Your task to perform on an android device: Add "acer predator" to the cart on amazon.com, then select checkout. Image 0: 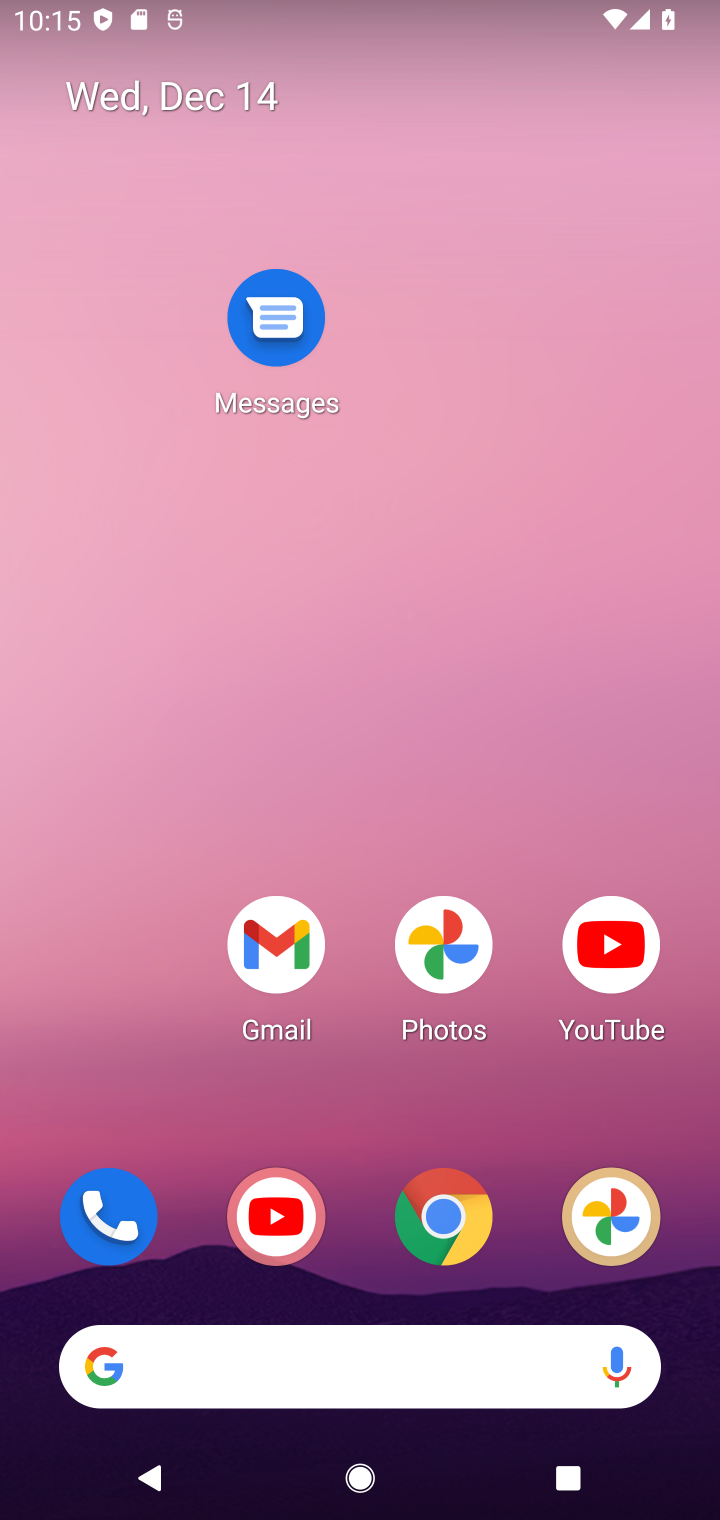
Step 0: press home button
Your task to perform on an android device: Add "acer predator" to the cart on amazon.com, then select checkout. Image 1: 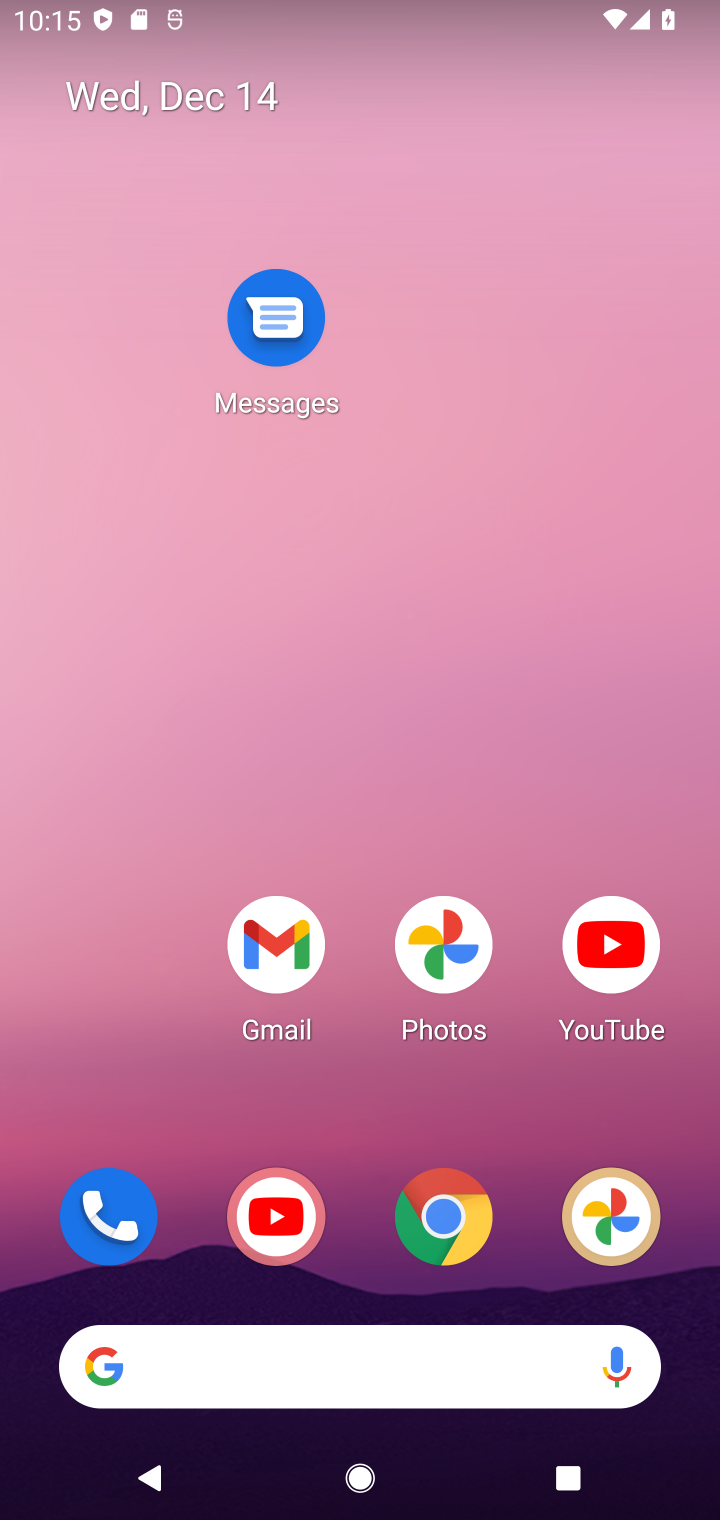
Step 1: drag from (343, 1044) to (249, 381)
Your task to perform on an android device: Add "acer predator" to the cart on amazon.com, then select checkout. Image 2: 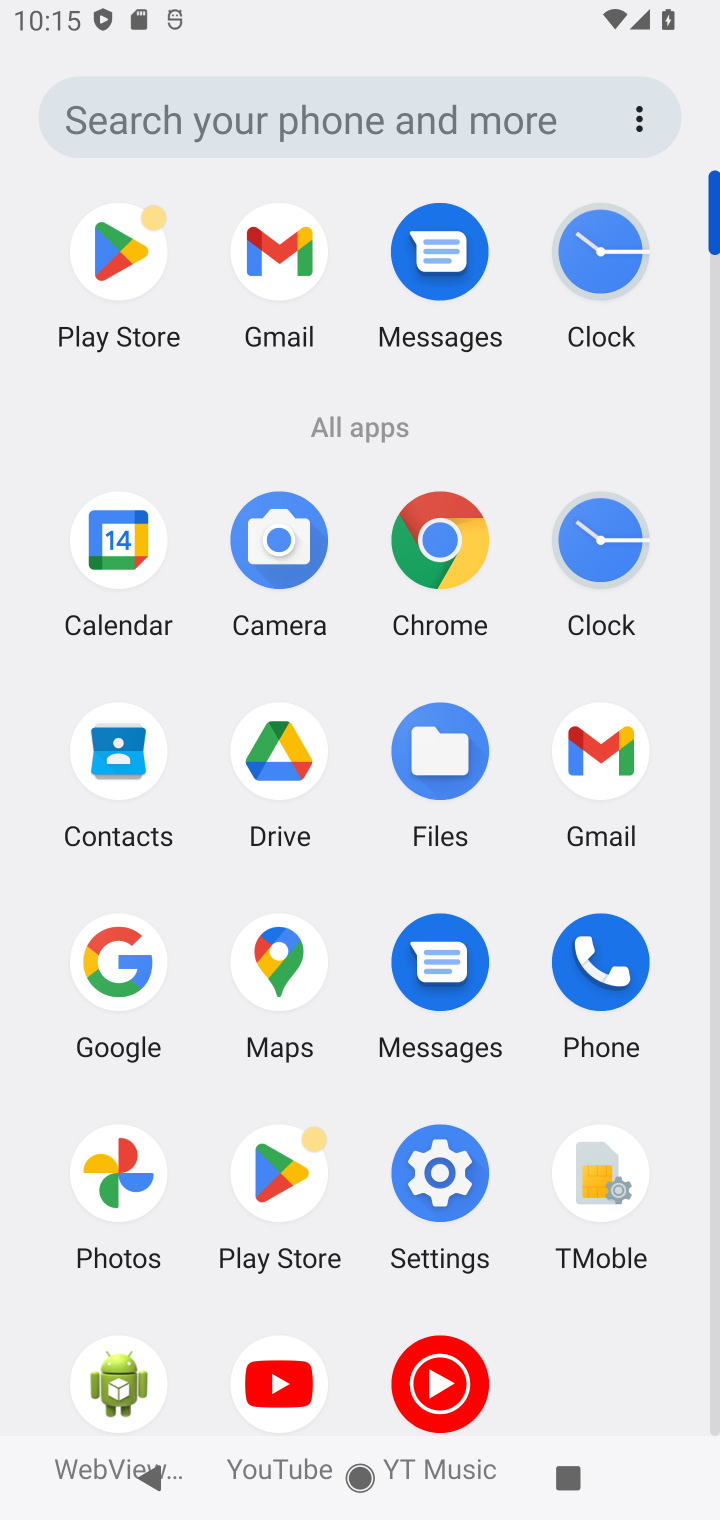
Step 2: click (134, 954)
Your task to perform on an android device: Add "acer predator" to the cart on amazon.com, then select checkout. Image 3: 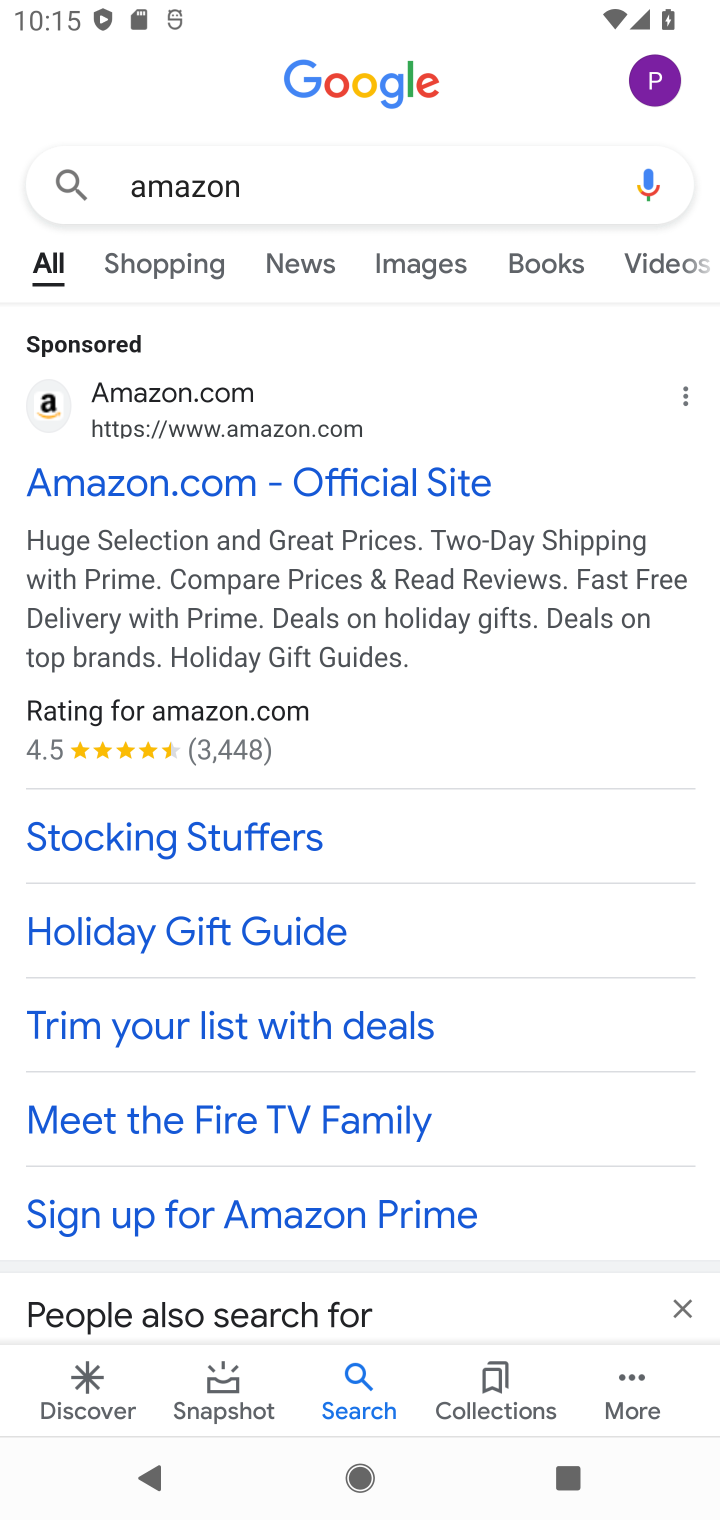
Step 3: click (192, 505)
Your task to perform on an android device: Add "acer predator" to the cart on amazon.com, then select checkout. Image 4: 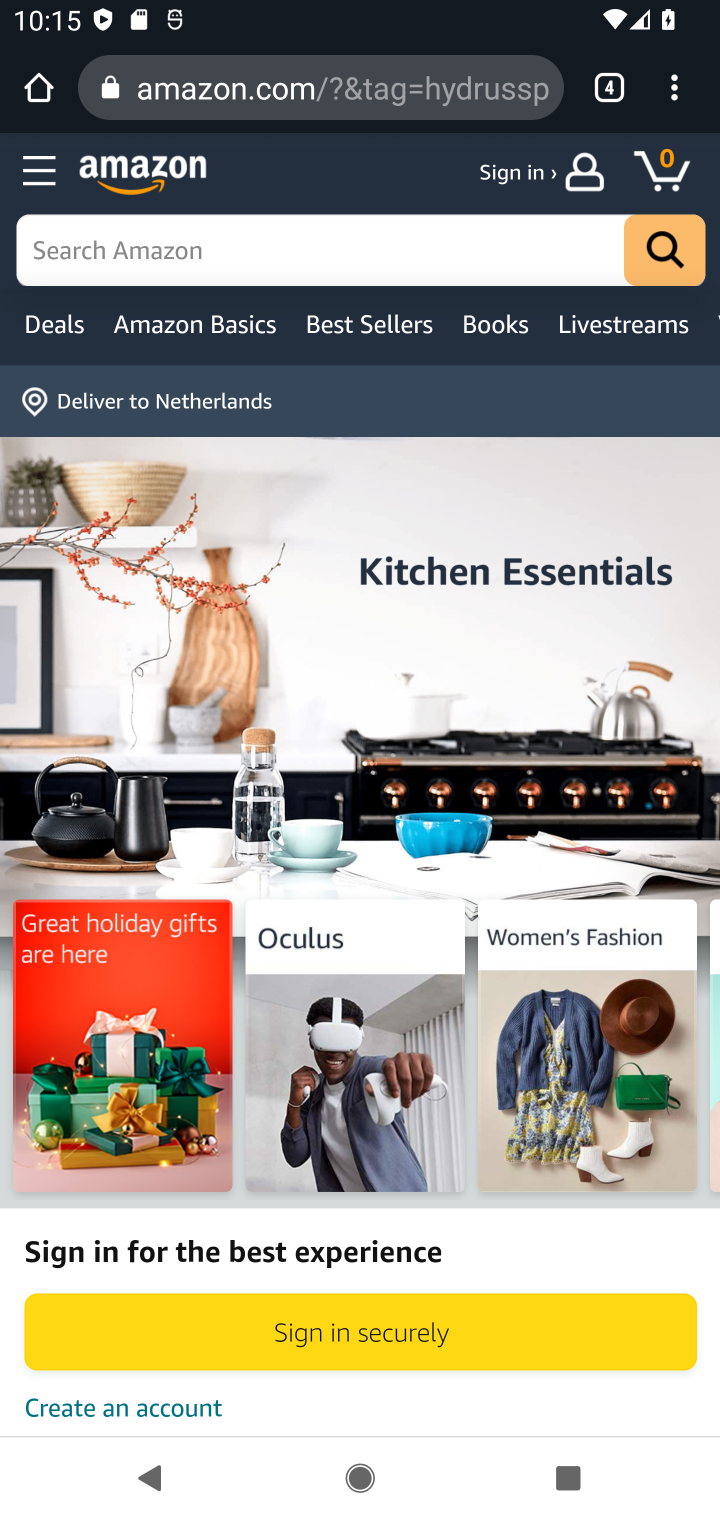
Step 4: click (59, 231)
Your task to perform on an android device: Add "acer predator" to the cart on amazon.com, then select checkout. Image 5: 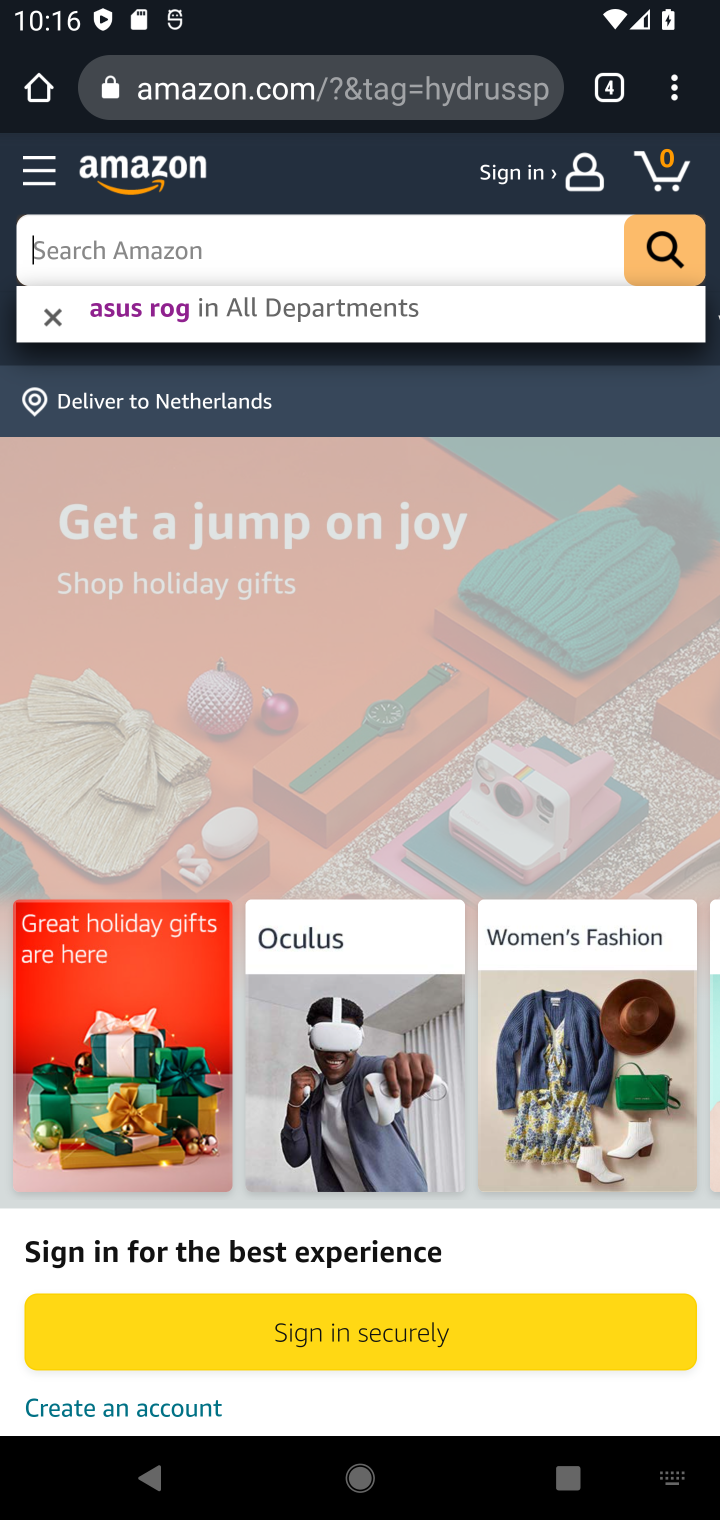
Step 5: type "acer predator"
Your task to perform on an android device: Add "acer predator" to the cart on amazon.com, then select checkout. Image 6: 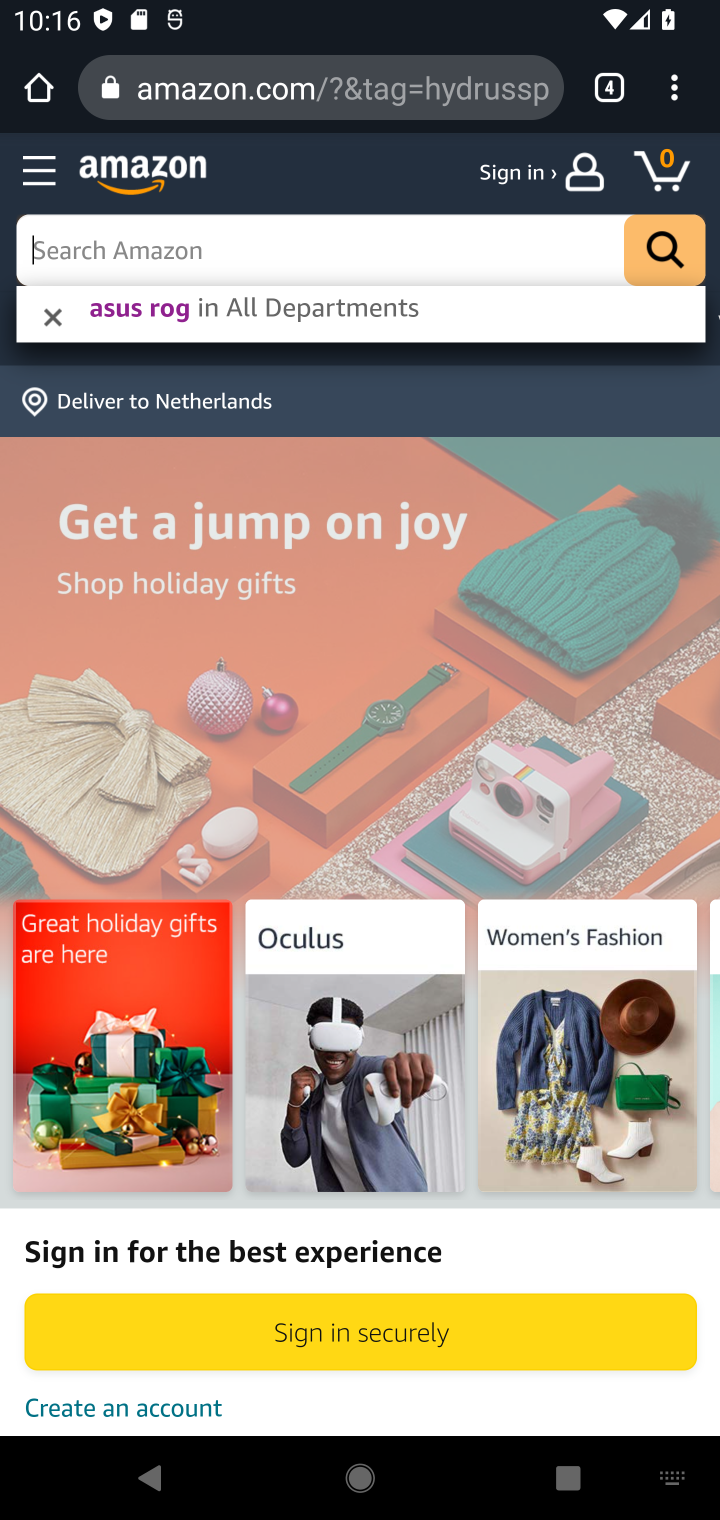
Step 6: click (665, 238)
Your task to perform on an android device: Add "acer predator" to the cart on amazon.com, then select checkout. Image 7: 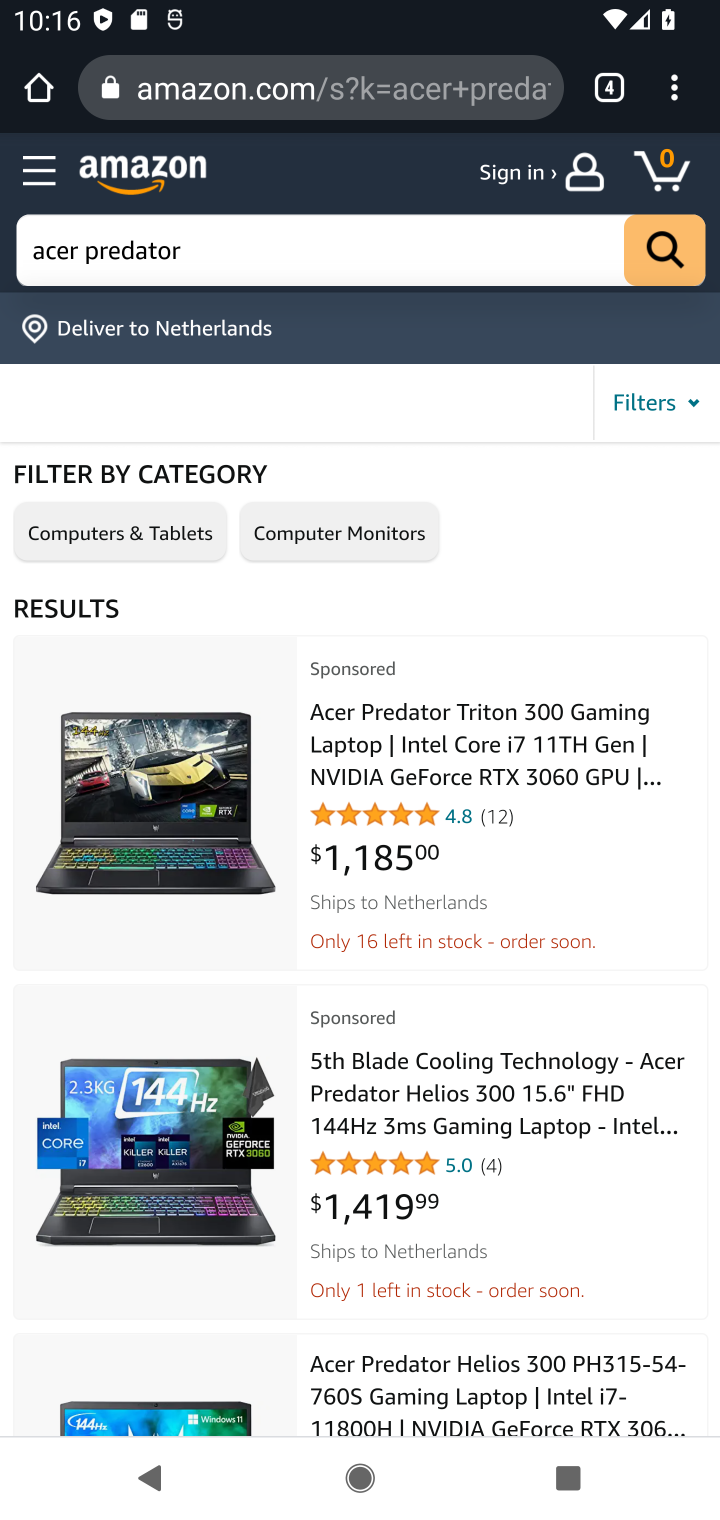
Step 7: click (424, 767)
Your task to perform on an android device: Add "acer predator" to the cart on amazon.com, then select checkout. Image 8: 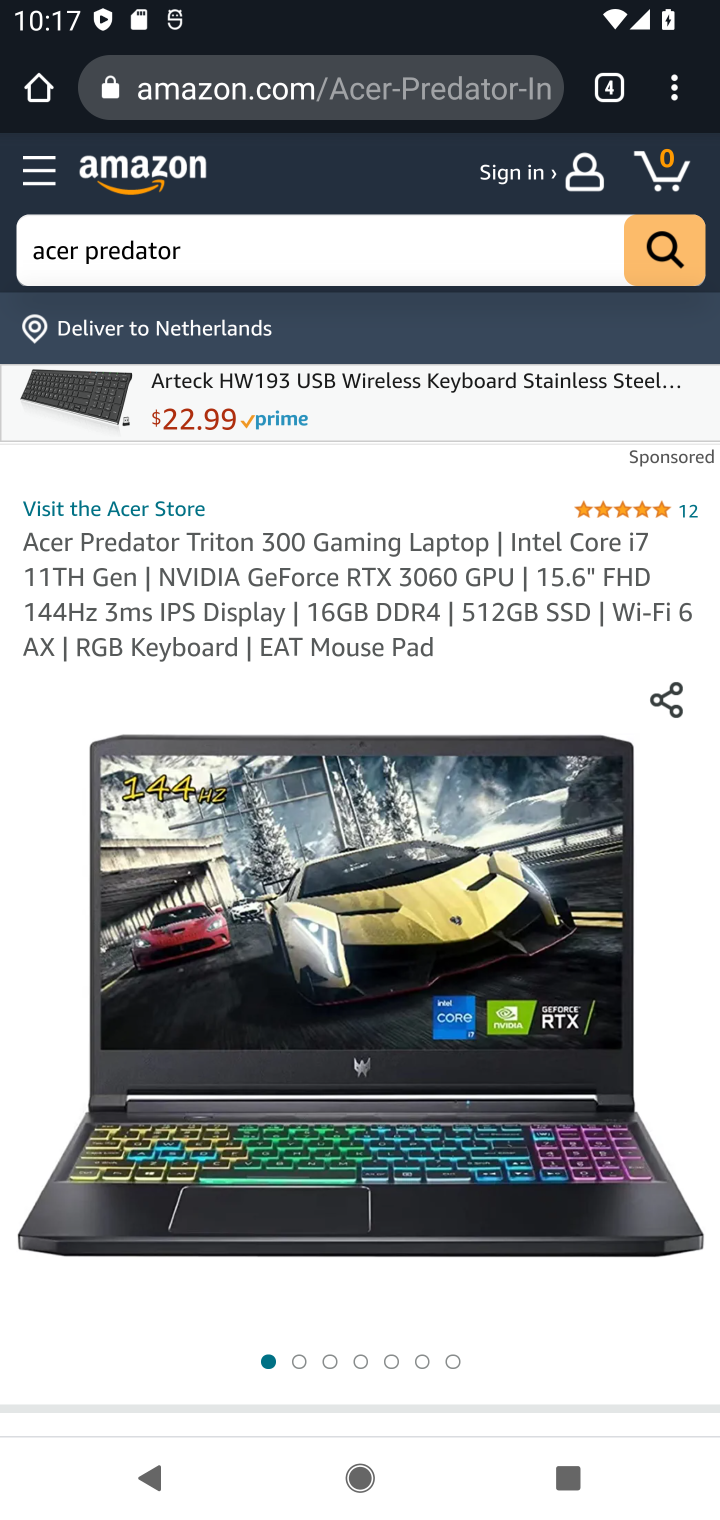
Step 8: drag from (369, 1282) to (253, 597)
Your task to perform on an android device: Add "acer predator" to the cart on amazon.com, then select checkout. Image 9: 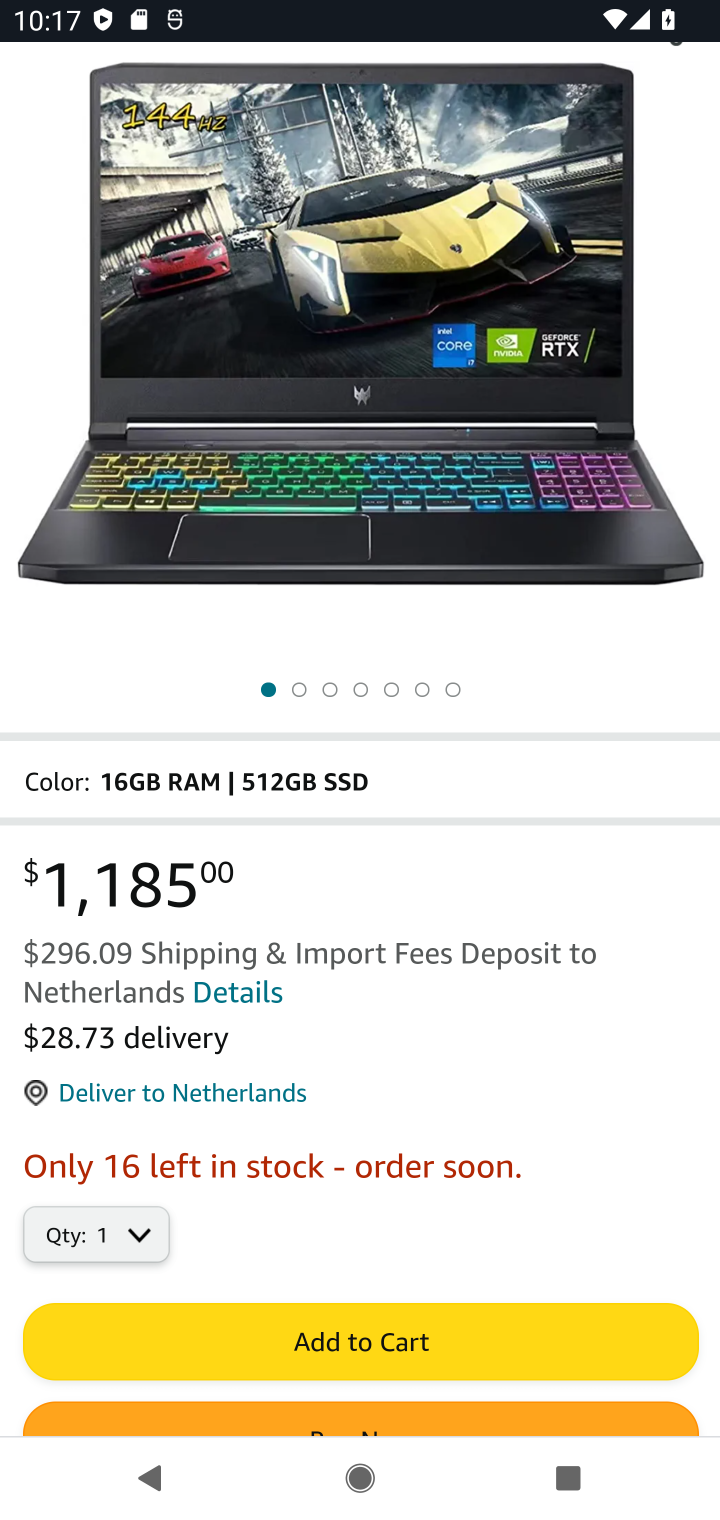
Step 9: click (361, 1346)
Your task to perform on an android device: Add "acer predator" to the cart on amazon.com, then select checkout. Image 10: 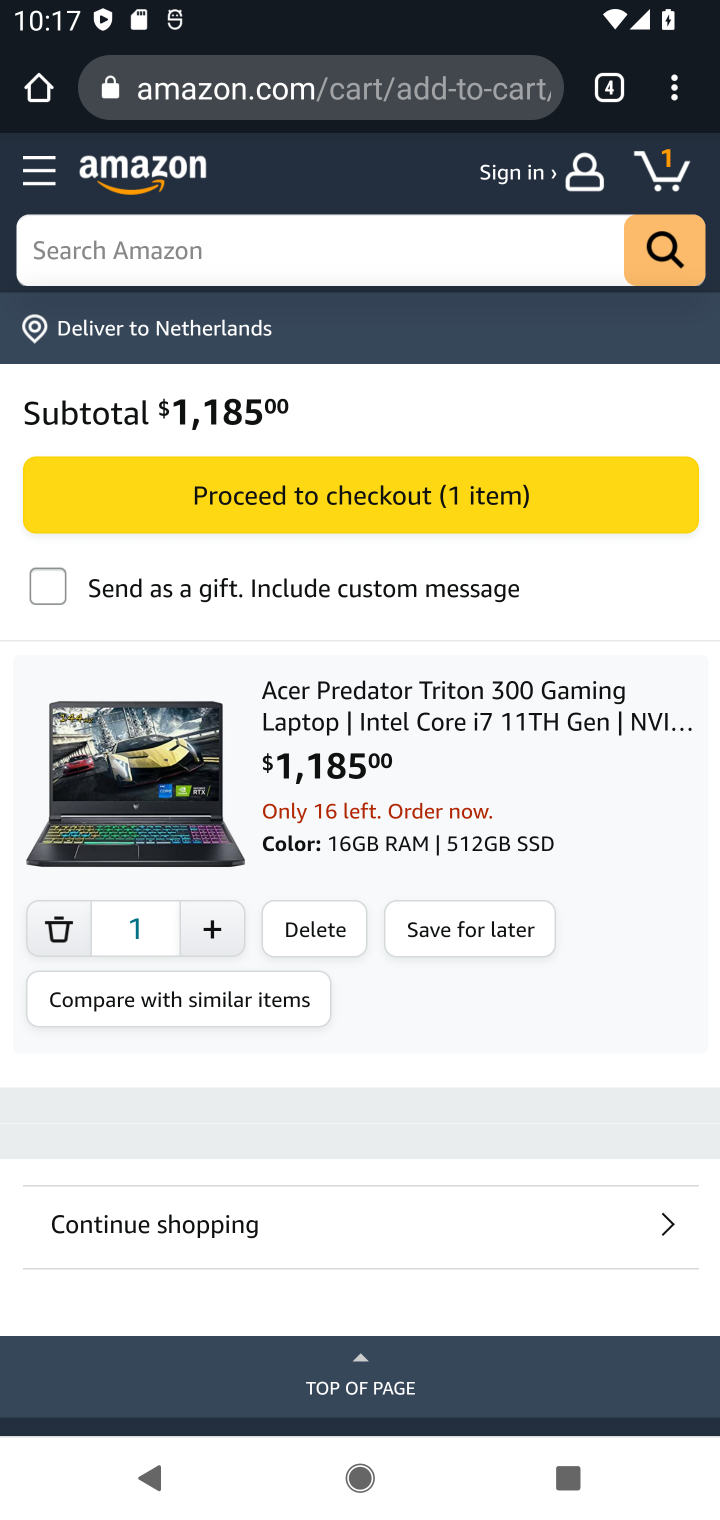
Step 10: click (656, 171)
Your task to perform on an android device: Add "acer predator" to the cart on amazon.com, then select checkout. Image 11: 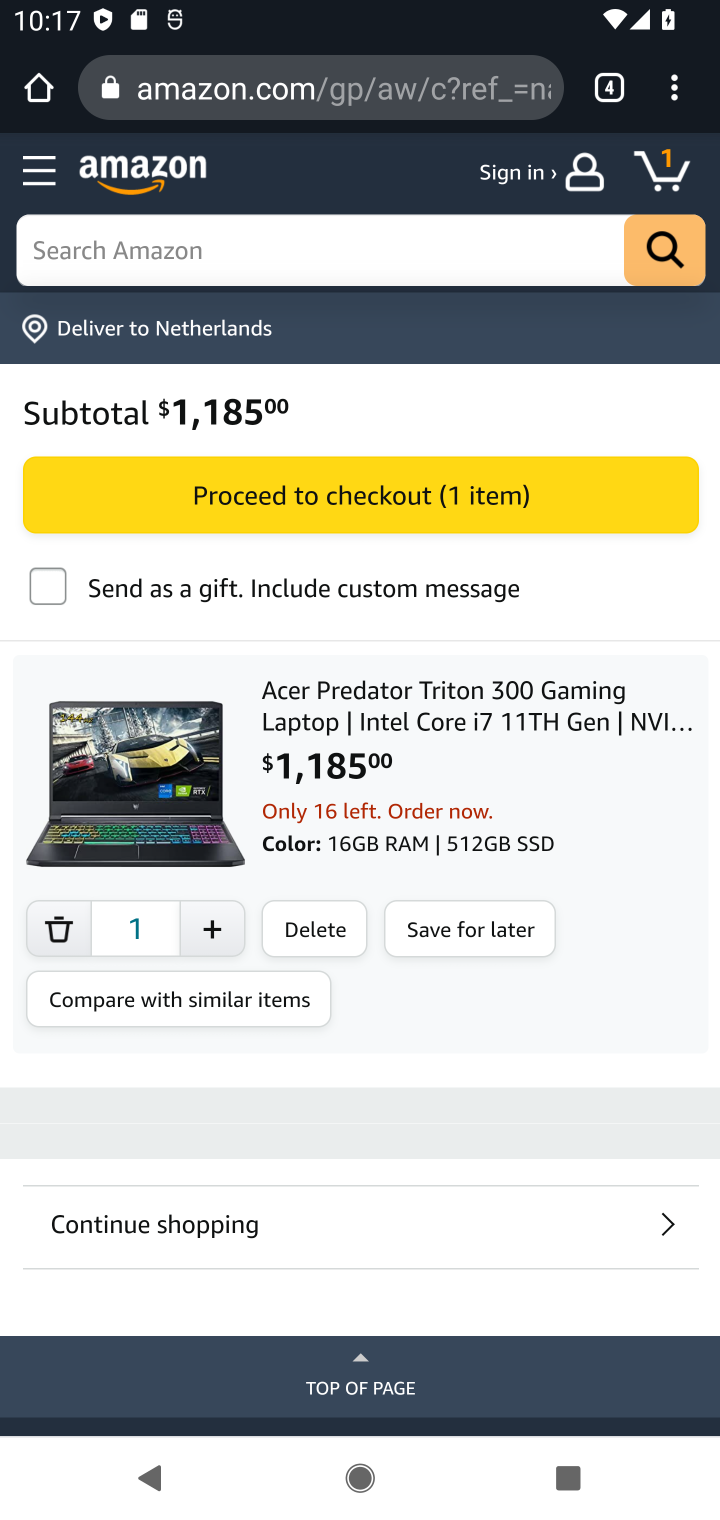
Step 11: click (563, 470)
Your task to perform on an android device: Add "acer predator" to the cart on amazon.com, then select checkout. Image 12: 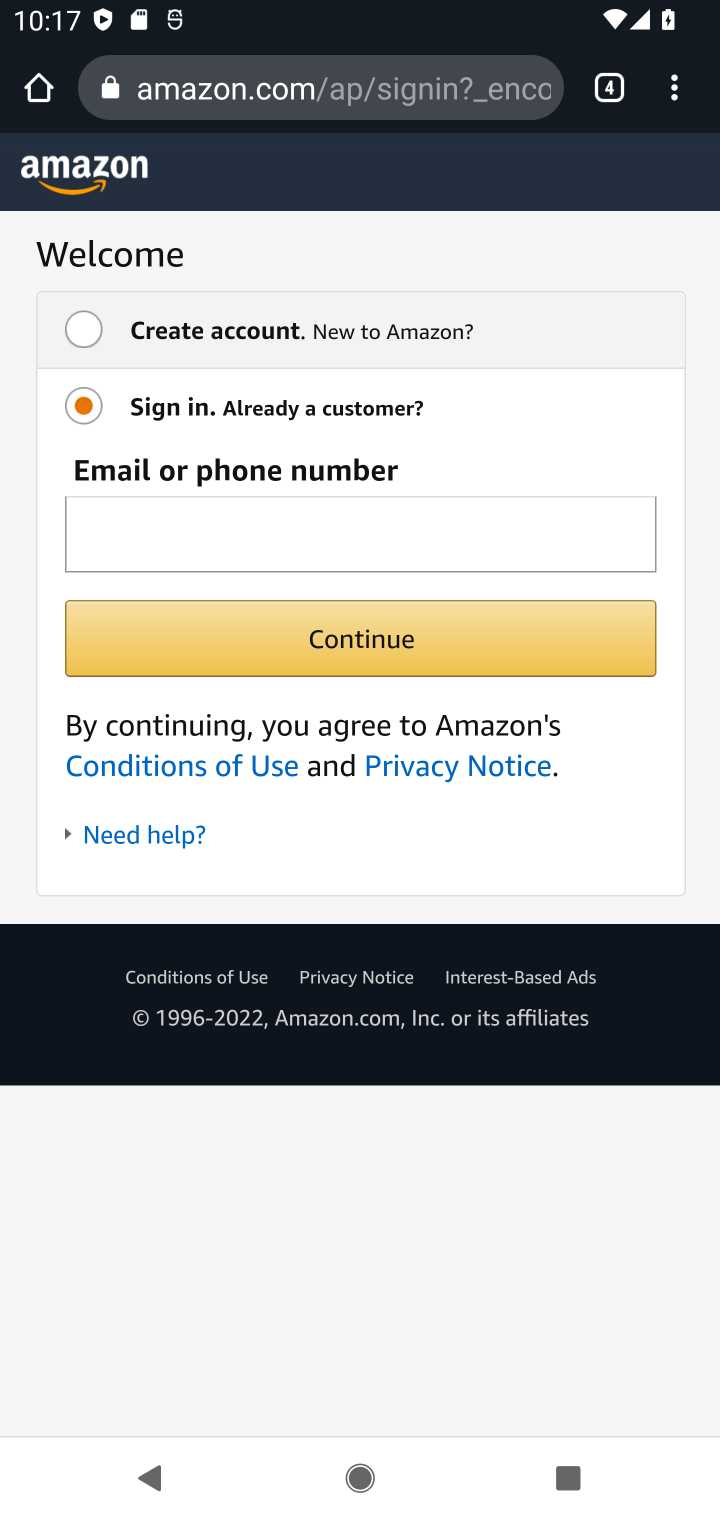
Step 12: task complete